Your task to perform on an android device: turn on showing notifications on the lock screen Image 0: 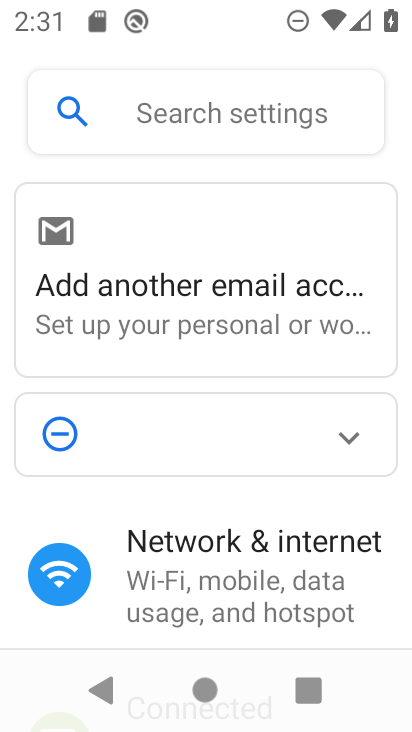
Step 0: drag from (214, 608) to (270, 278)
Your task to perform on an android device: turn on showing notifications on the lock screen Image 1: 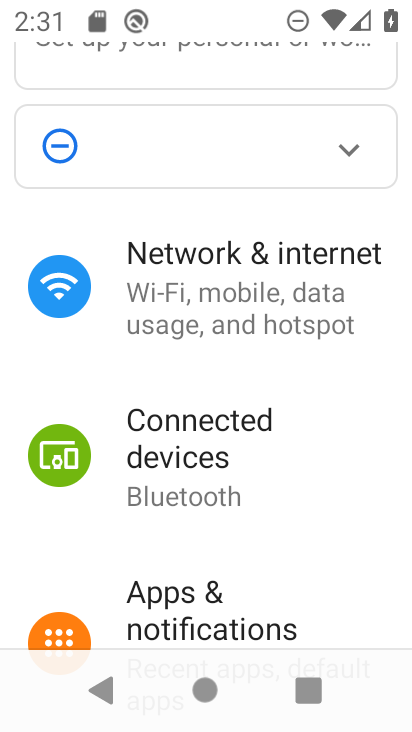
Step 1: click (201, 619)
Your task to perform on an android device: turn on showing notifications on the lock screen Image 2: 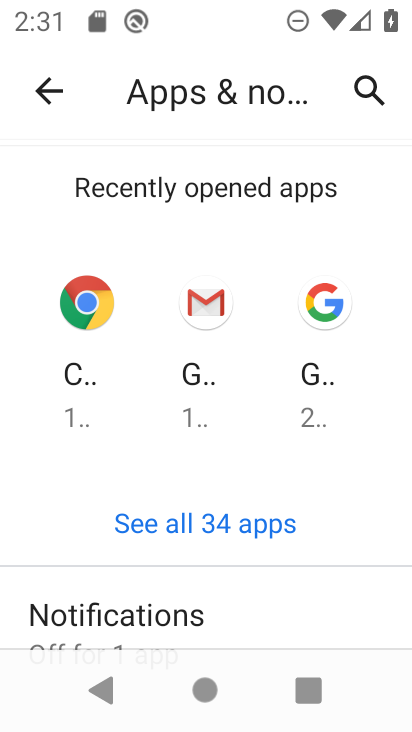
Step 2: drag from (183, 592) to (223, 289)
Your task to perform on an android device: turn on showing notifications on the lock screen Image 3: 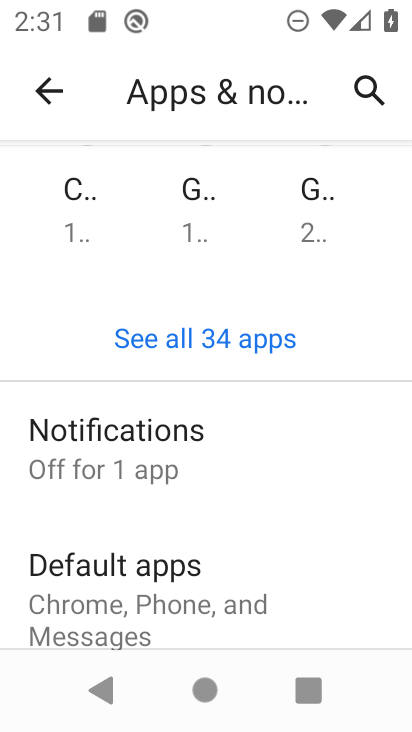
Step 3: drag from (211, 498) to (244, 253)
Your task to perform on an android device: turn on showing notifications on the lock screen Image 4: 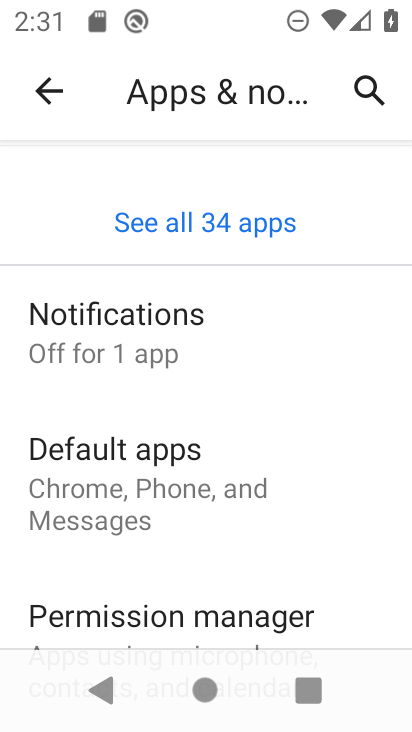
Step 4: drag from (208, 435) to (249, 240)
Your task to perform on an android device: turn on showing notifications on the lock screen Image 5: 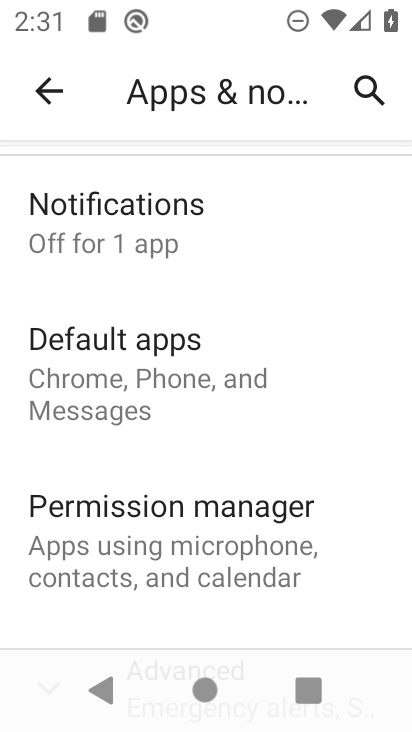
Step 5: drag from (232, 523) to (252, 239)
Your task to perform on an android device: turn on showing notifications on the lock screen Image 6: 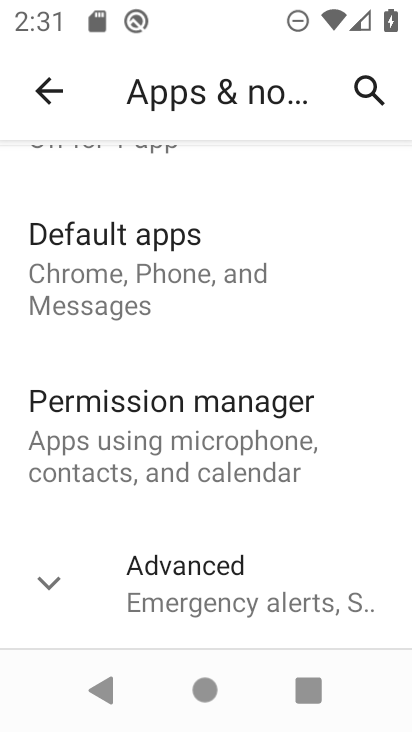
Step 6: drag from (238, 279) to (224, 611)
Your task to perform on an android device: turn on showing notifications on the lock screen Image 7: 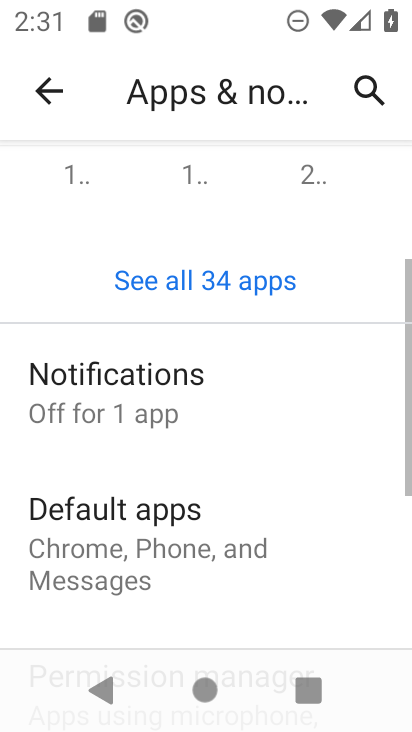
Step 7: click (156, 403)
Your task to perform on an android device: turn on showing notifications on the lock screen Image 8: 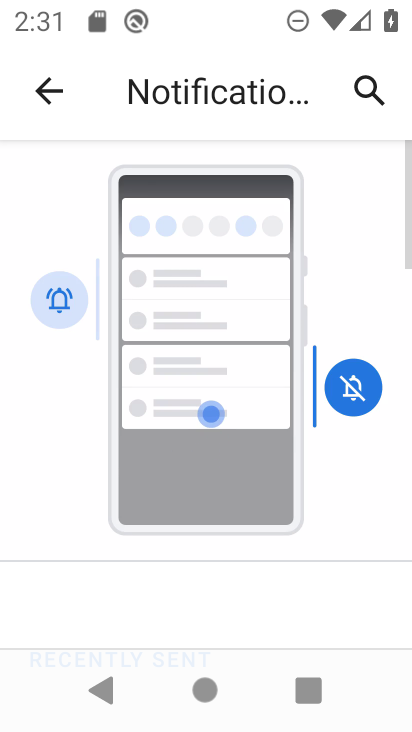
Step 8: drag from (188, 528) to (222, 173)
Your task to perform on an android device: turn on showing notifications on the lock screen Image 9: 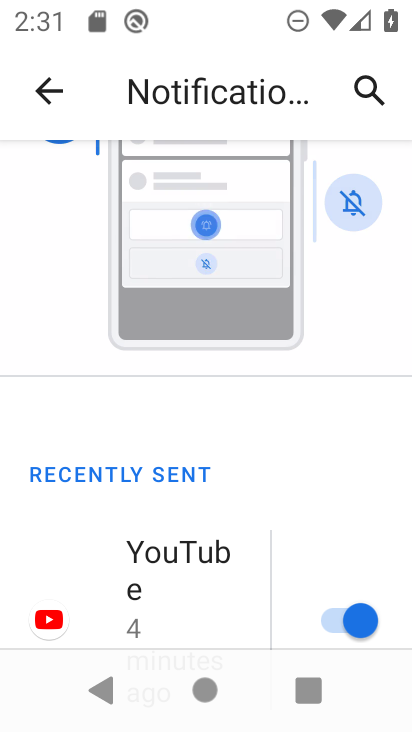
Step 9: click (235, 129)
Your task to perform on an android device: turn on showing notifications on the lock screen Image 10: 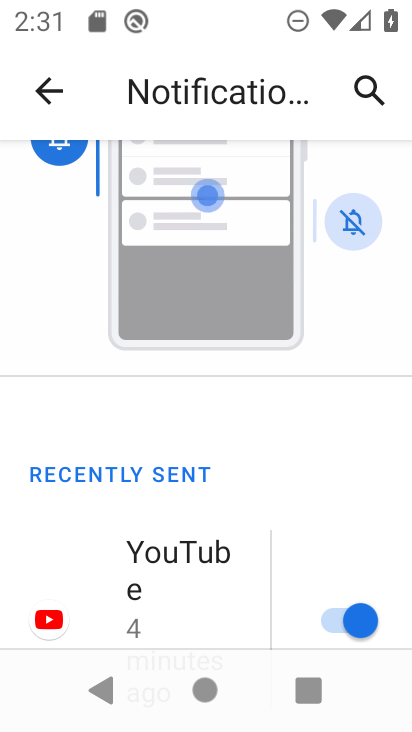
Step 10: drag from (223, 485) to (211, 139)
Your task to perform on an android device: turn on showing notifications on the lock screen Image 11: 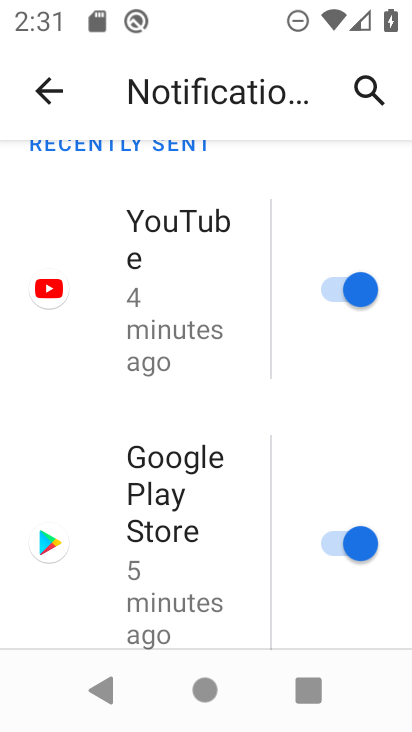
Step 11: drag from (195, 499) to (204, 154)
Your task to perform on an android device: turn on showing notifications on the lock screen Image 12: 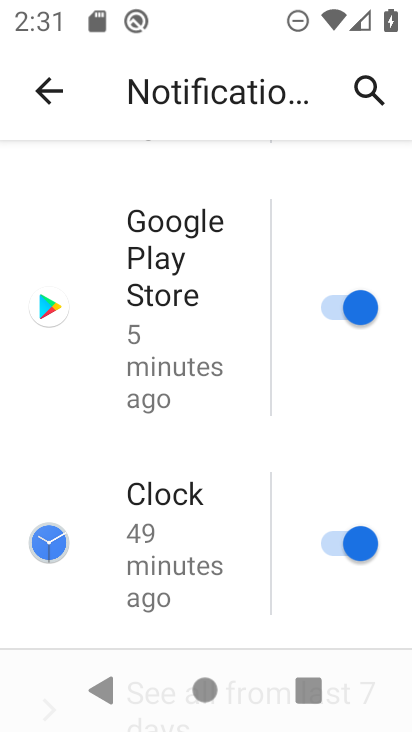
Step 12: drag from (165, 467) to (215, 26)
Your task to perform on an android device: turn on showing notifications on the lock screen Image 13: 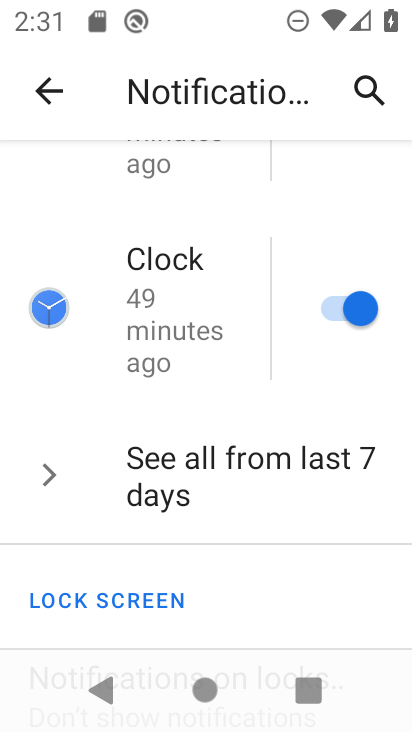
Step 13: drag from (165, 552) to (189, 170)
Your task to perform on an android device: turn on showing notifications on the lock screen Image 14: 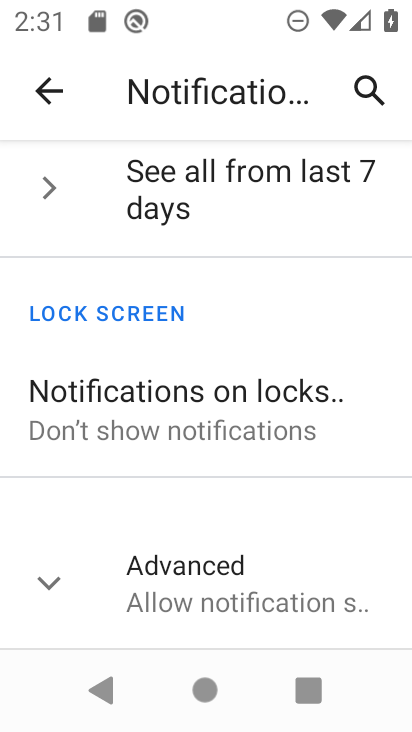
Step 14: click (210, 574)
Your task to perform on an android device: turn on showing notifications on the lock screen Image 15: 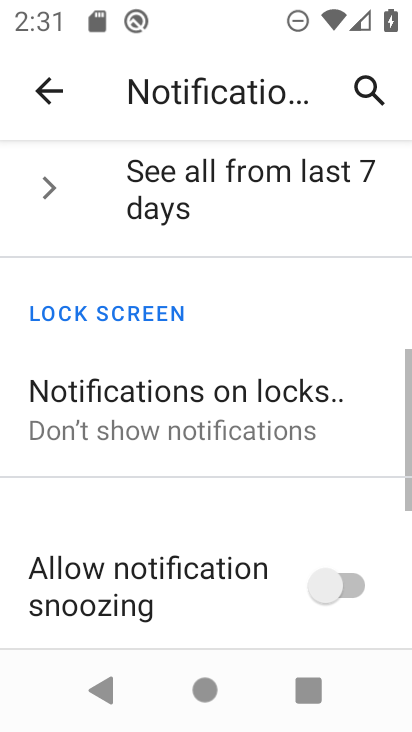
Step 15: drag from (210, 569) to (222, 220)
Your task to perform on an android device: turn on showing notifications on the lock screen Image 16: 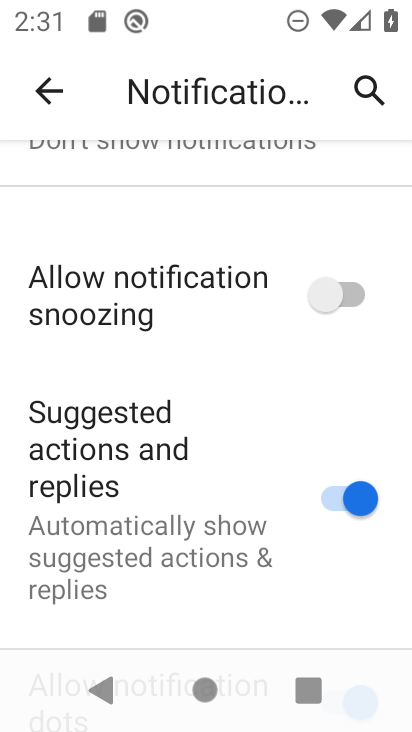
Step 16: drag from (236, 548) to (257, 447)
Your task to perform on an android device: turn on showing notifications on the lock screen Image 17: 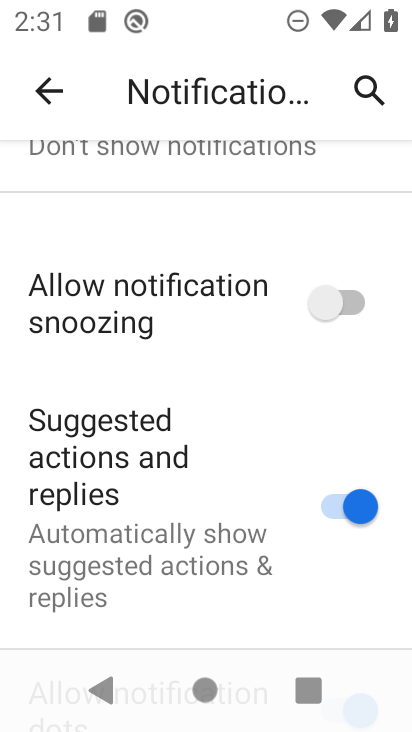
Step 17: click (307, 309)
Your task to perform on an android device: turn on showing notifications on the lock screen Image 18: 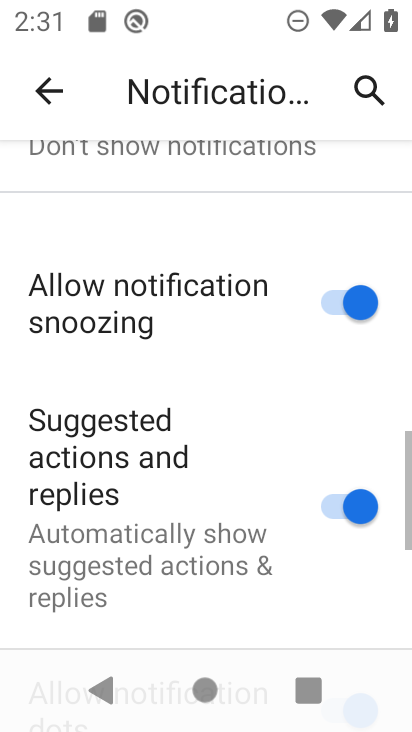
Step 18: task complete